Your task to perform on an android device: toggle improve location accuracy Image 0: 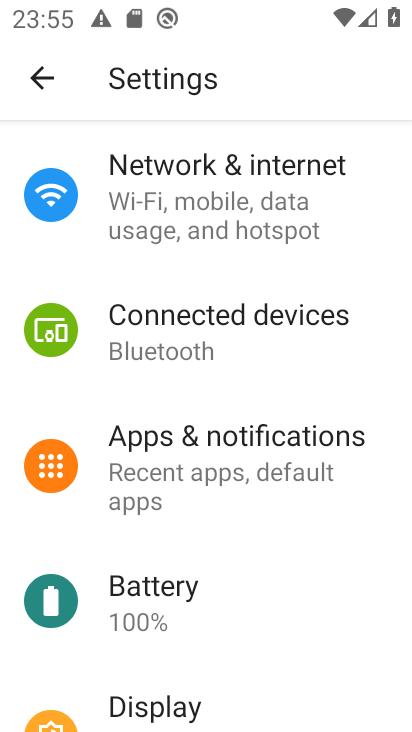
Step 0: press home button
Your task to perform on an android device: toggle improve location accuracy Image 1: 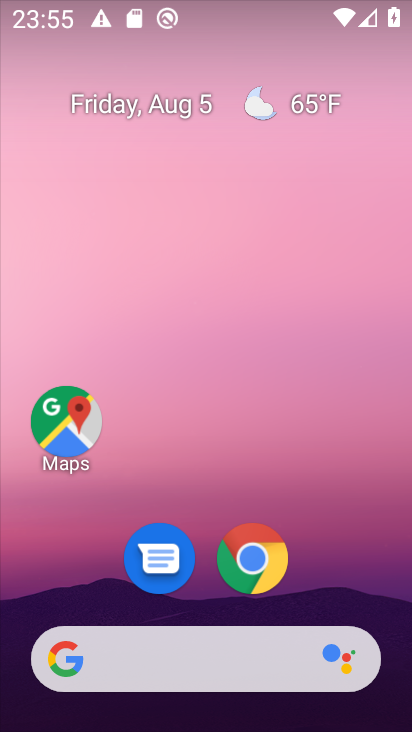
Step 1: drag from (362, 567) to (361, 235)
Your task to perform on an android device: toggle improve location accuracy Image 2: 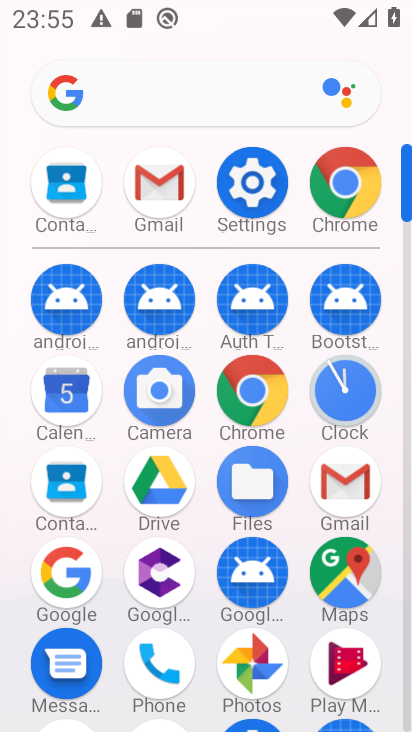
Step 2: click (261, 225)
Your task to perform on an android device: toggle improve location accuracy Image 3: 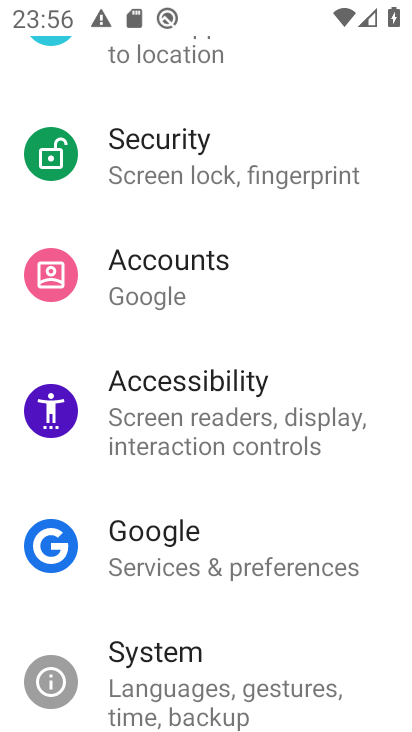
Step 3: drag from (372, 369) to (369, 264)
Your task to perform on an android device: toggle improve location accuracy Image 4: 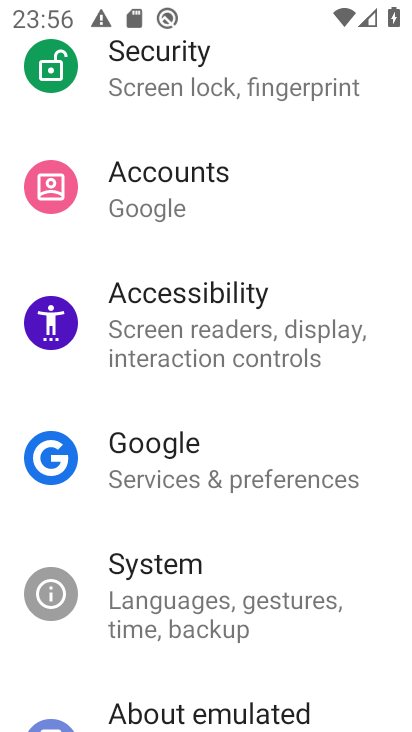
Step 4: drag from (347, 448) to (363, 340)
Your task to perform on an android device: toggle improve location accuracy Image 5: 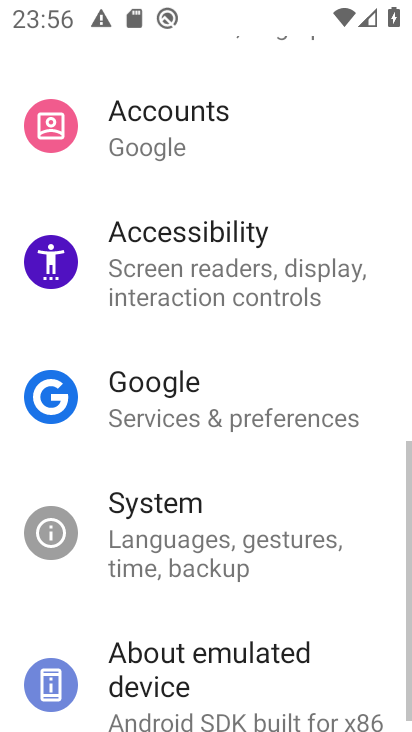
Step 5: drag from (363, 229) to (376, 364)
Your task to perform on an android device: toggle improve location accuracy Image 6: 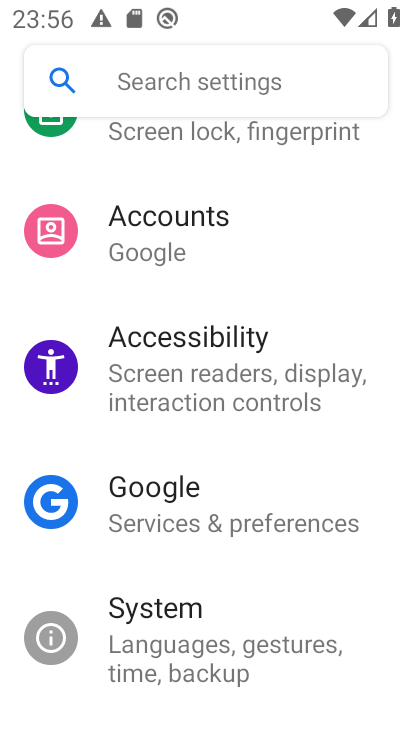
Step 6: drag from (379, 201) to (381, 325)
Your task to perform on an android device: toggle improve location accuracy Image 7: 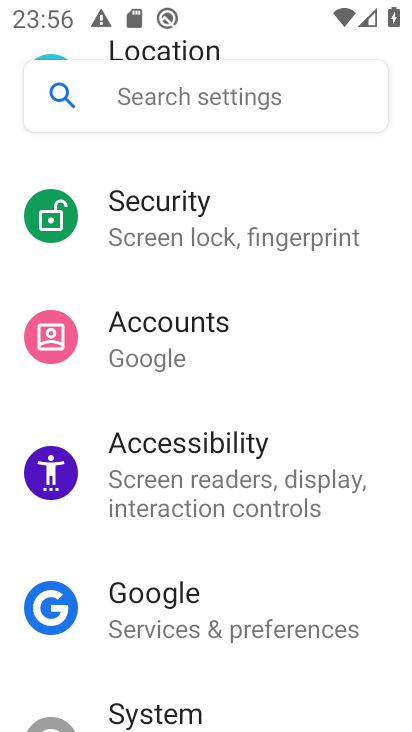
Step 7: drag from (378, 179) to (378, 333)
Your task to perform on an android device: toggle improve location accuracy Image 8: 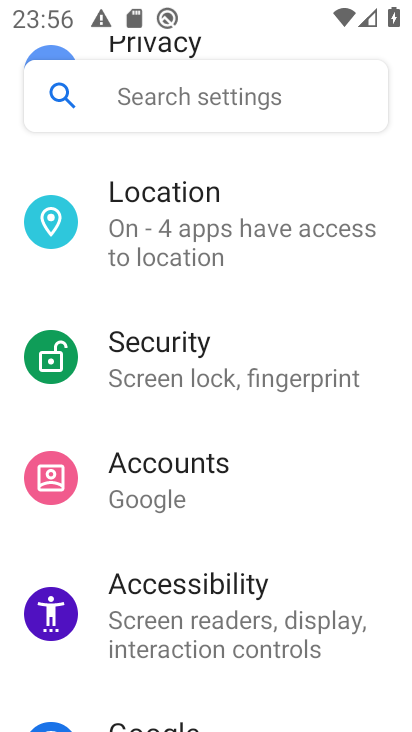
Step 8: drag from (381, 177) to (382, 291)
Your task to perform on an android device: toggle improve location accuracy Image 9: 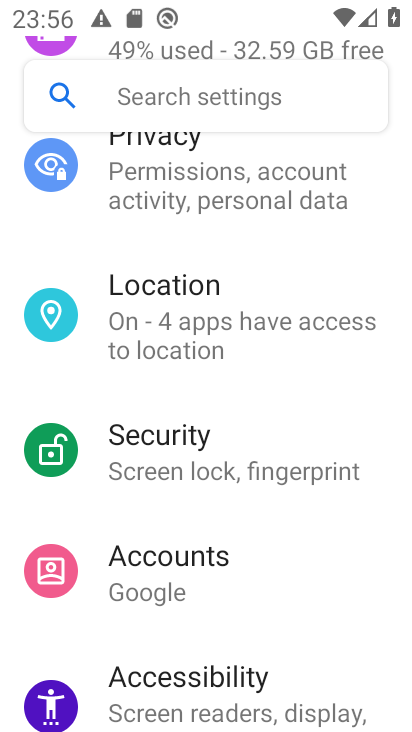
Step 9: drag from (351, 248) to (369, 479)
Your task to perform on an android device: toggle improve location accuracy Image 10: 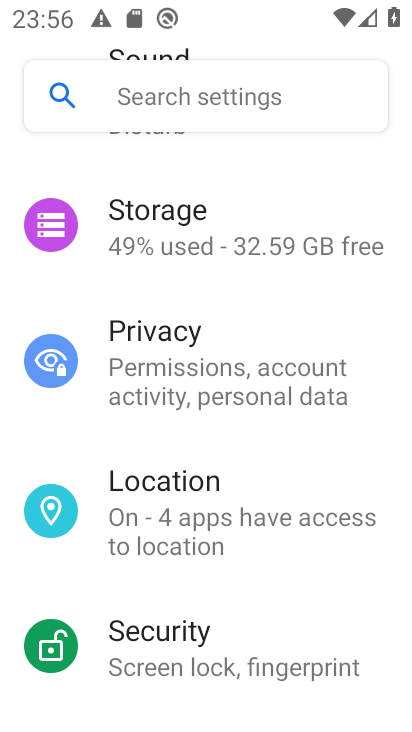
Step 10: click (202, 493)
Your task to perform on an android device: toggle improve location accuracy Image 11: 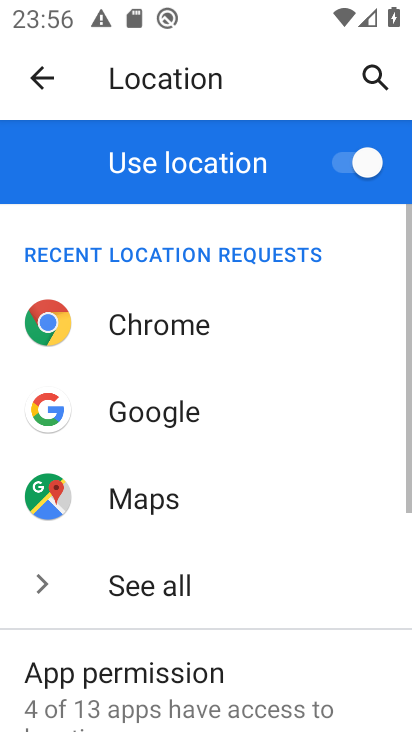
Step 11: drag from (310, 558) to (300, 355)
Your task to perform on an android device: toggle improve location accuracy Image 12: 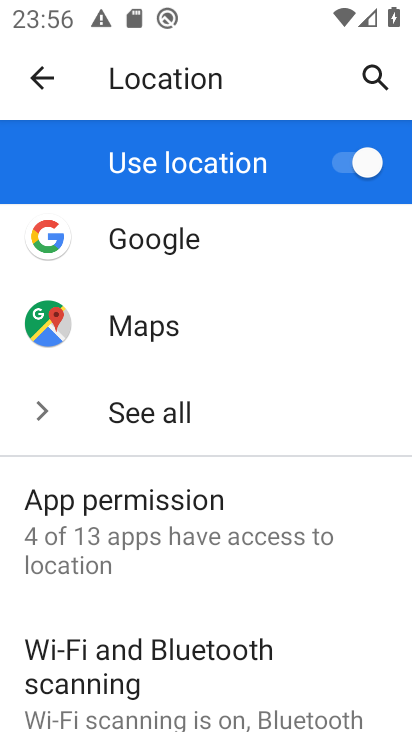
Step 12: drag from (281, 574) to (293, 425)
Your task to perform on an android device: toggle improve location accuracy Image 13: 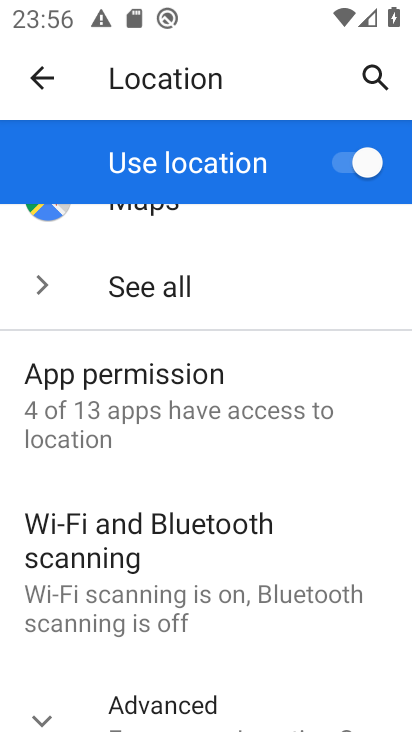
Step 13: drag from (274, 642) to (288, 447)
Your task to perform on an android device: toggle improve location accuracy Image 14: 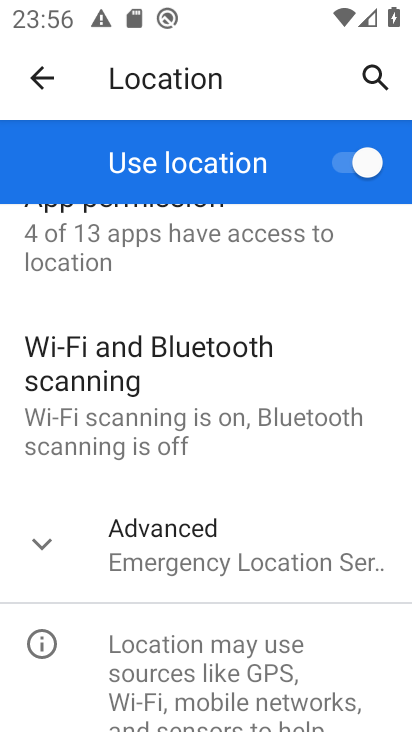
Step 14: click (267, 552)
Your task to perform on an android device: toggle improve location accuracy Image 15: 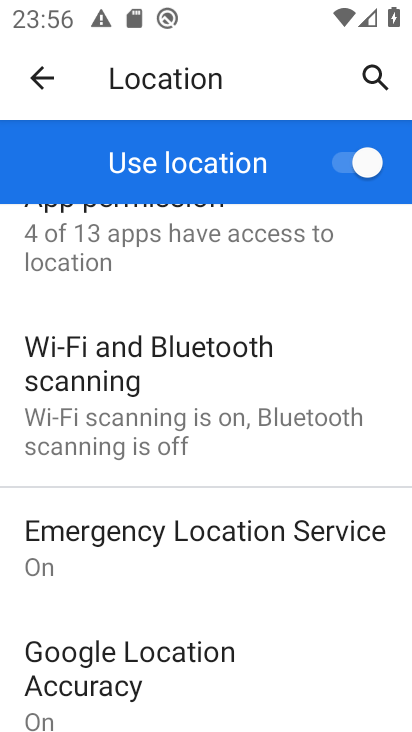
Step 15: drag from (291, 596) to (315, 422)
Your task to perform on an android device: toggle improve location accuracy Image 16: 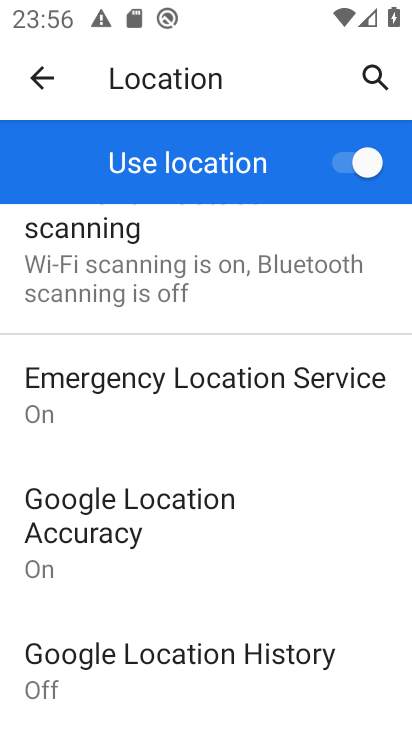
Step 16: drag from (301, 570) to (316, 396)
Your task to perform on an android device: toggle improve location accuracy Image 17: 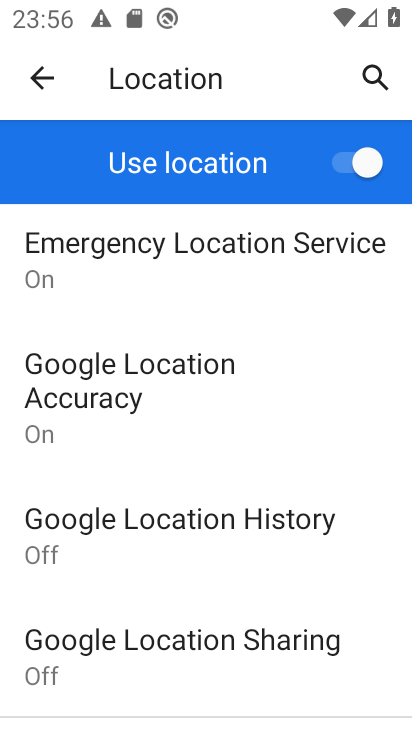
Step 17: click (153, 373)
Your task to perform on an android device: toggle improve location accuracy Image 18: 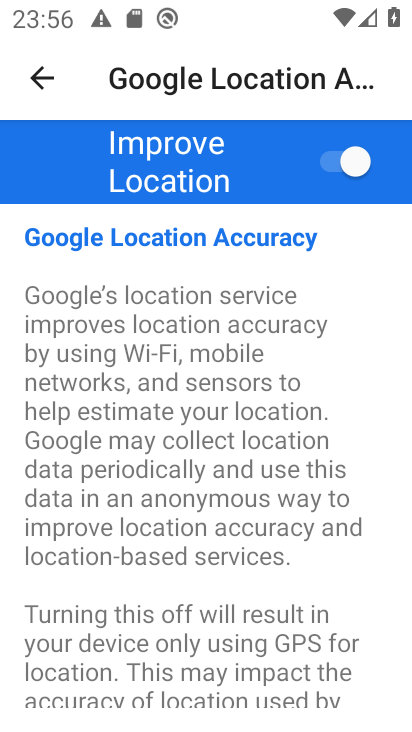
Step 18: click (359, 162)
Your task to perform on an android device: toggle improve location accuracy Image 19: 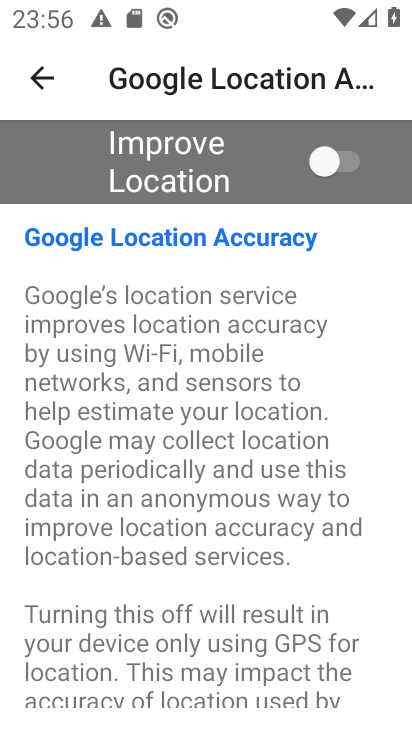
Step 19: task complete